Your task to perform on an android device: toggle data saver in the chrome app Image 0: 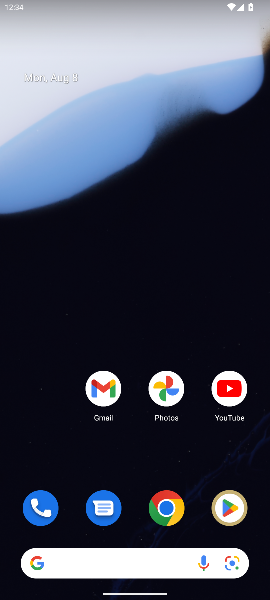
Step 0: click (171, 501)
Your task to perform on an android device: toggle data saver in the chrome app Image 1: 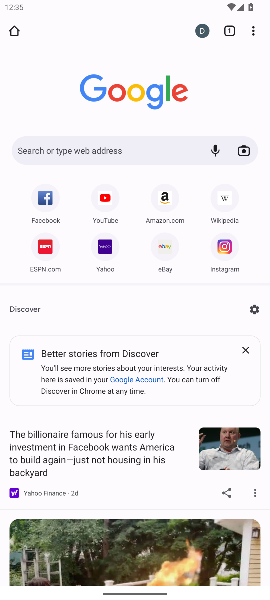
Step 1: click (256, 31)
Your task to perform on an android device: toggle data saver in the chrome app Image 2: 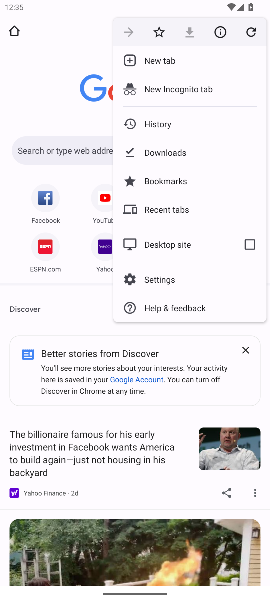
Step 2: click (177, 274)
Your task to perform on an android device: toggle data saver in the chrome app Image 3: 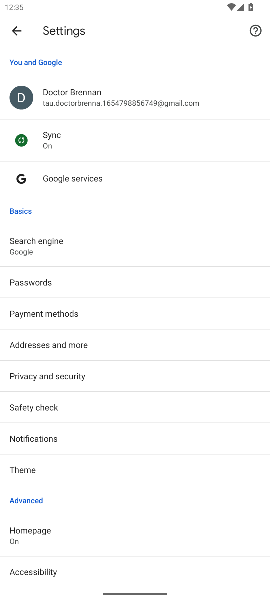
Step 3: task complete